Your task to perform on an android device: change notifications settings Image 0: 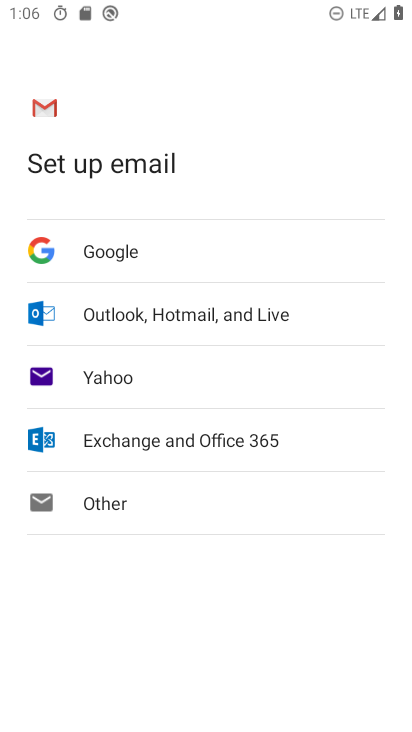
Step 0: press home button
Your task to perform on an android device: change notifications settings Image 1: 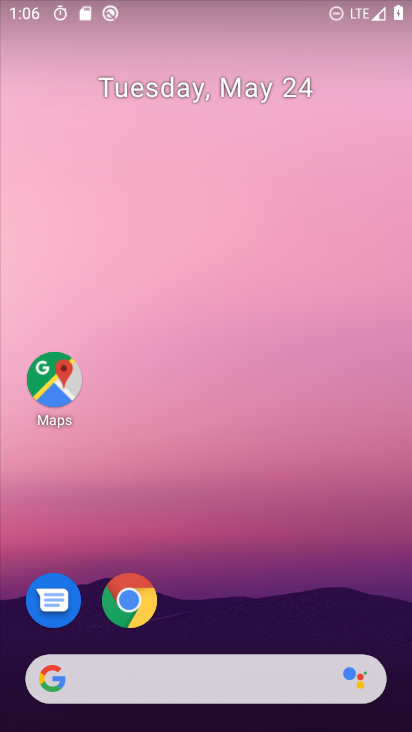
Step 1: drag from (226, 570) to (228, 107)
Your task to perform on an android device: change notifications settings Image 2: 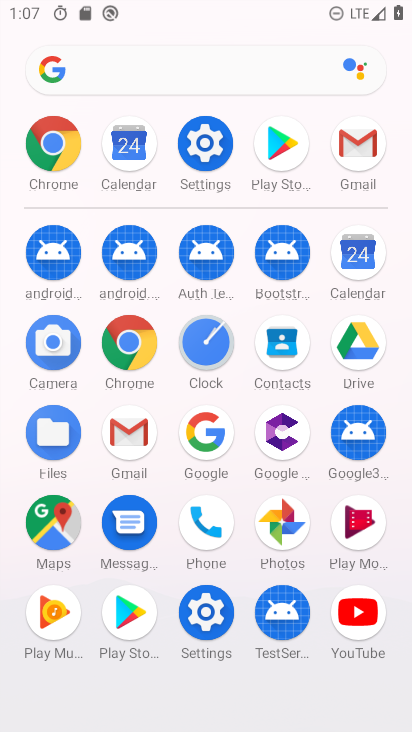
Step 2: click (202, 147)
Your task to perform on an android device: change notifications settings Image 3: 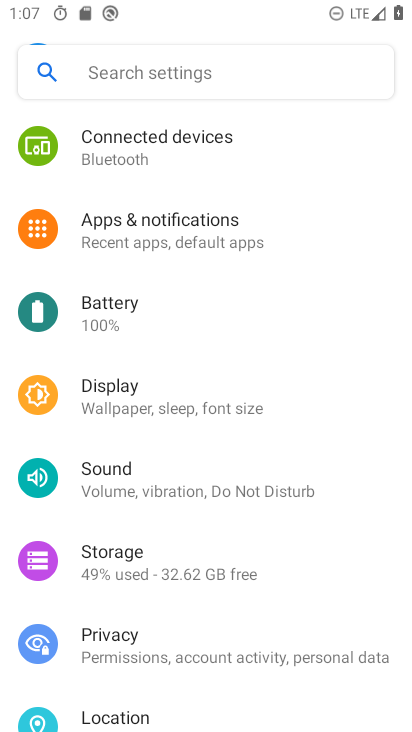
Step 3: drag from (202, 147) to (194, 346)
Your task to perform on an android device: change notifications settings Image 4: 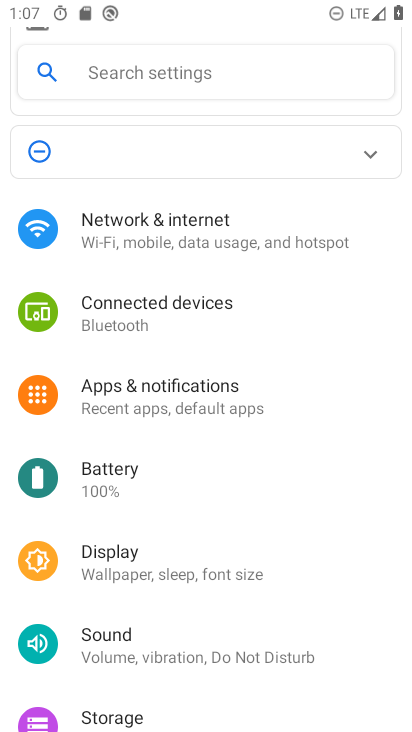
Step 4: click (174, 385)
Your task to perform on an android device: change notifications settings Image 5: 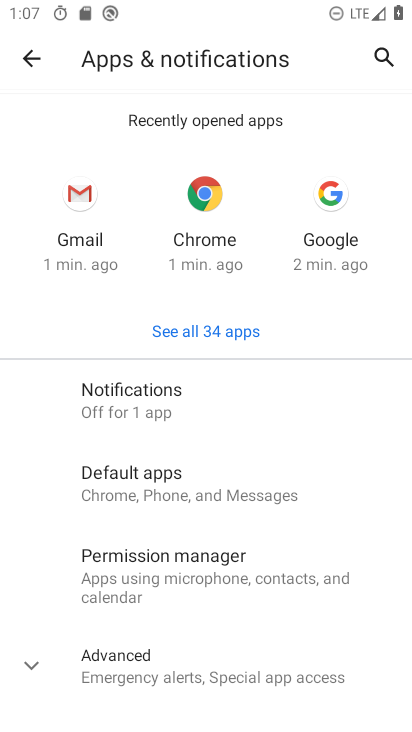
Step 5: click (189, 403)
Your task to perform on an android device: change notifications settings Image 6: 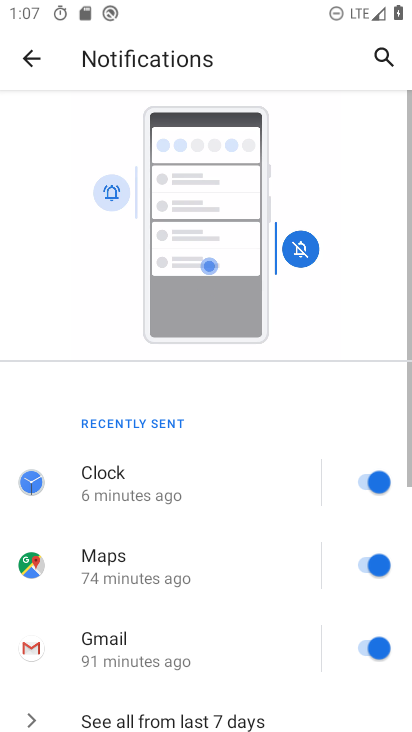
Step 6: drag from (235, 628) to (303, 66)
Your task to perform on an android device: change notifications settings Image 7: 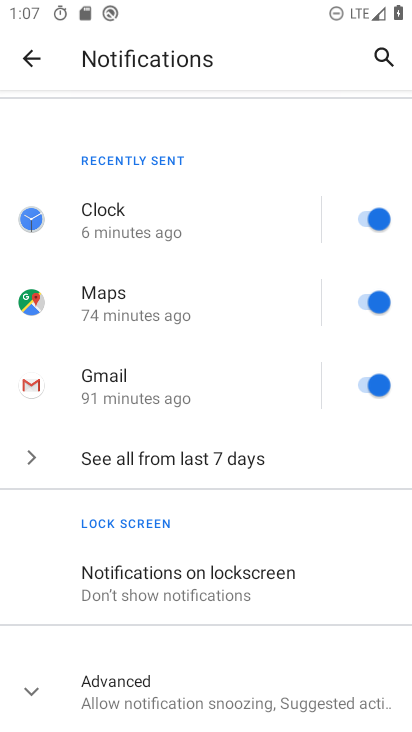
Step 7: click (171, 682)
Your task to perform on an android device: change notifications settings Image 8: 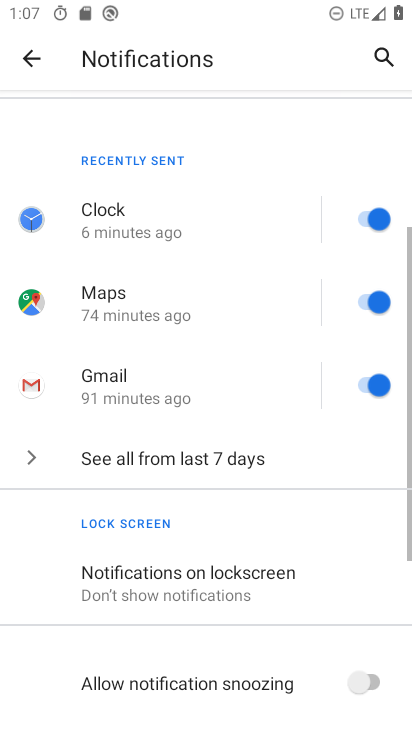
Step 8: drag from (195, 654) to (236, 247)
Your task to perform on an android device: change notifications settings Image 9: 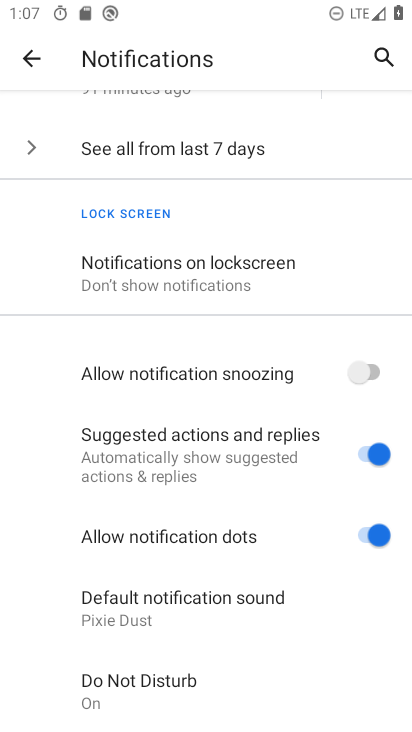
Step 9: click (379, 365)
Your task to perform on an android device: change notifications settings Image 10: 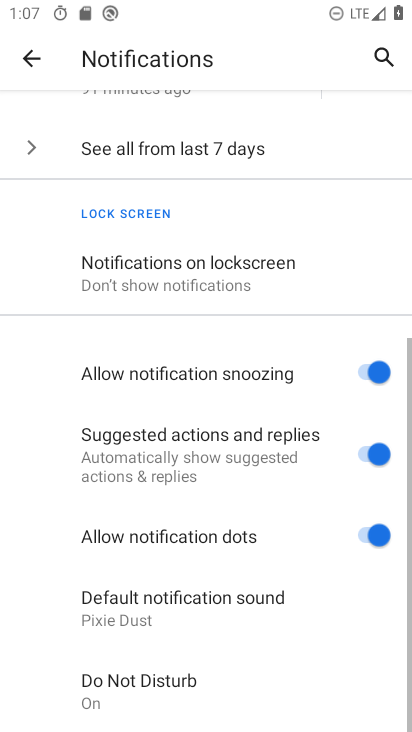
Step 10: task complete